Your task to perform on an android device: toggle improve location accuracy Image 0: 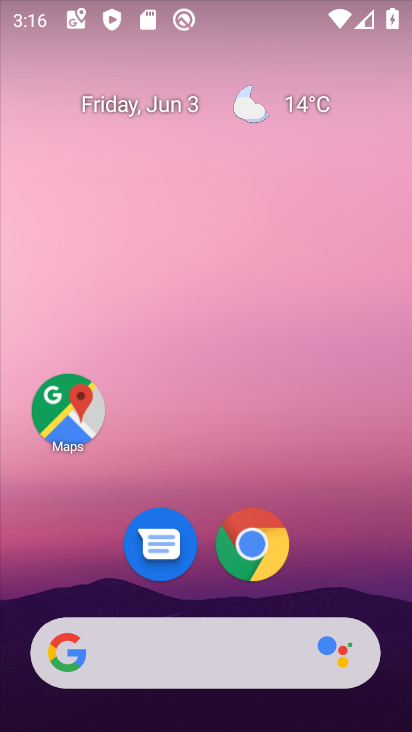
Step 0: drag from (394, 624) to (342, 19)
Your task to perform on an android device: toggle improve location accuracy Image 1: 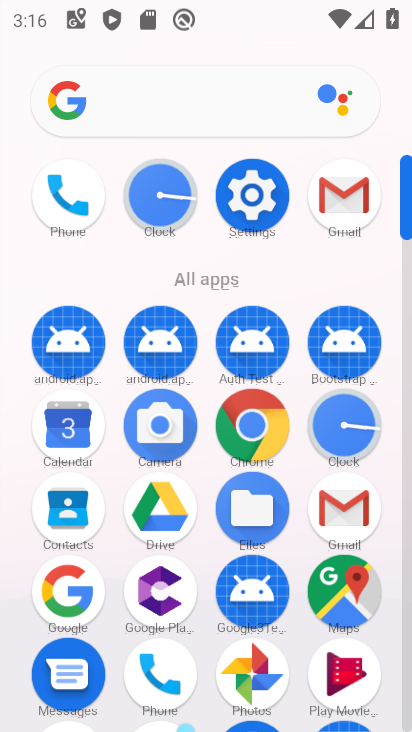
Step 1: click (409, 677)
Your task to perform on an android device: toggle improve location accuracy Image 2: 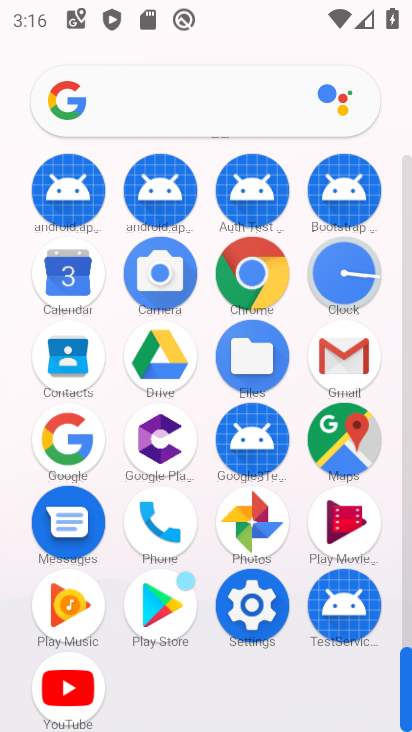
Step 2: click (249, 605)
Your task to perform on an android device: toggle improve location accuracy Image 3: 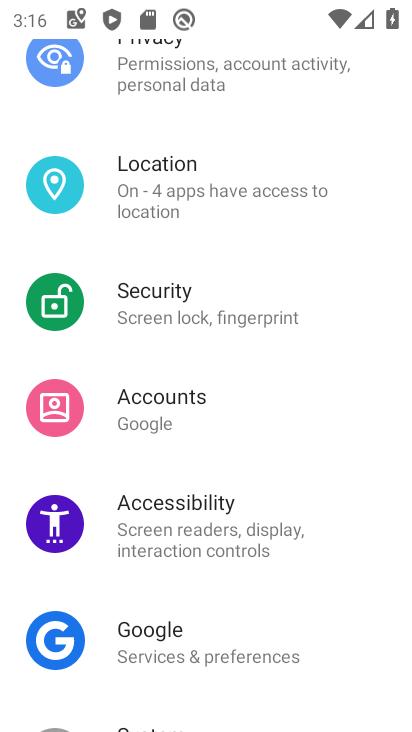
Step 3: click (135, 182)
Your task to perform on an android device: toggle improve location accuracy Image 4: 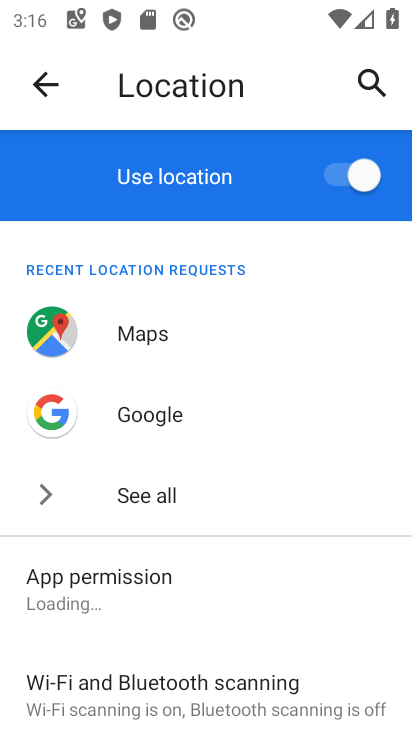
Step 4: drag from (281, 623) to (306, 247)
Your task to perform on an android device: toggle improve location accuracy Image 5: 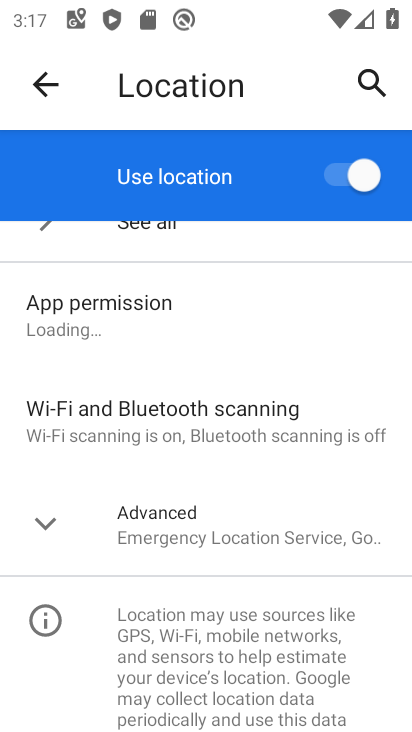
Step 5: click (37, 525)
Your task to perform on an android device: toggle improve location accuracy Image 6: 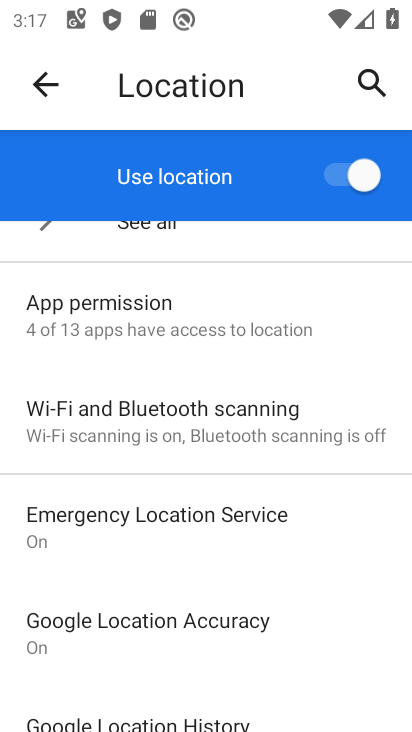
Step 6: click (148, 623)
Your task to perform on an android device: toggle improve location accuracy Image 7: 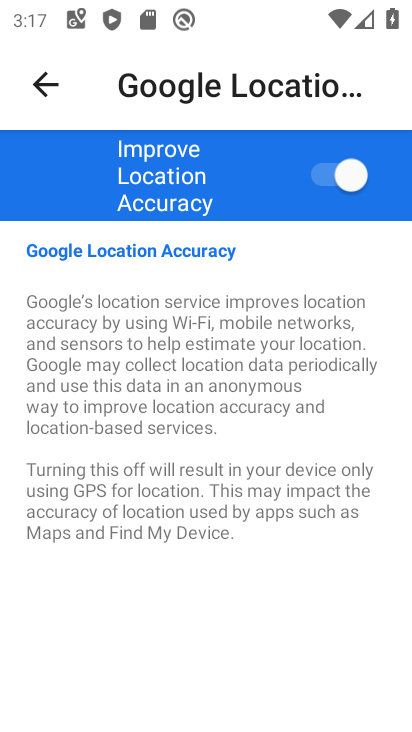
Step 7: click (319, 173)
Your task to perform on an android device: toggle improve location accuracy Image 8: 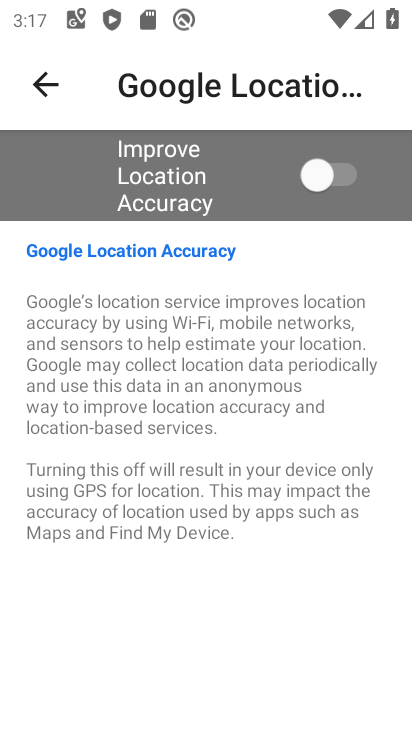
Step 8: task complete